Your task to perform on an android device: Open the map Image 0: 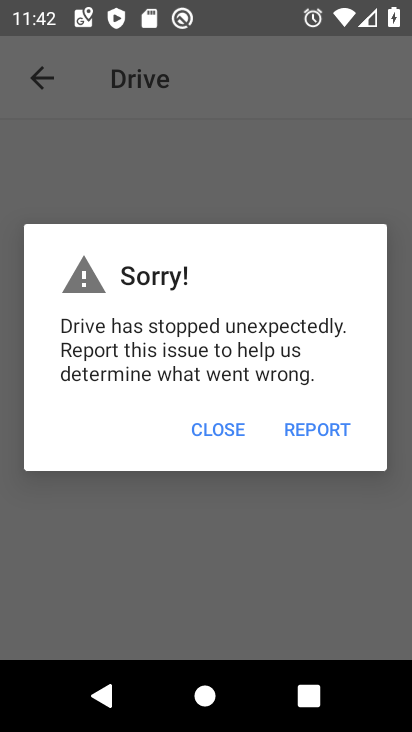
Step 0: press home button
Your task to perform on an android device: Open the map Image 1: 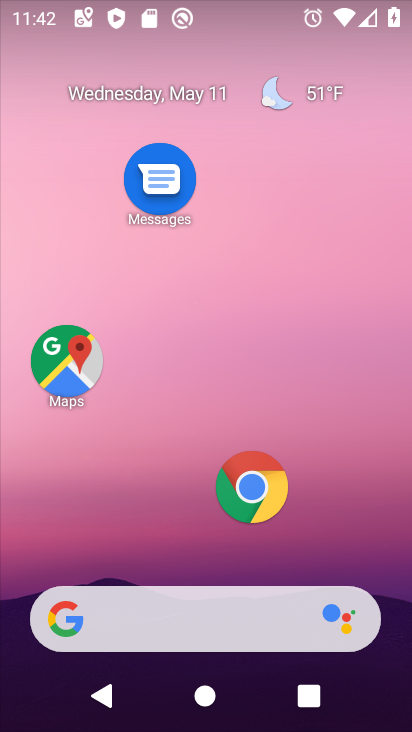
Step 1: click (88, 342)
Your task to perform on an android device: Open the map Image 2: 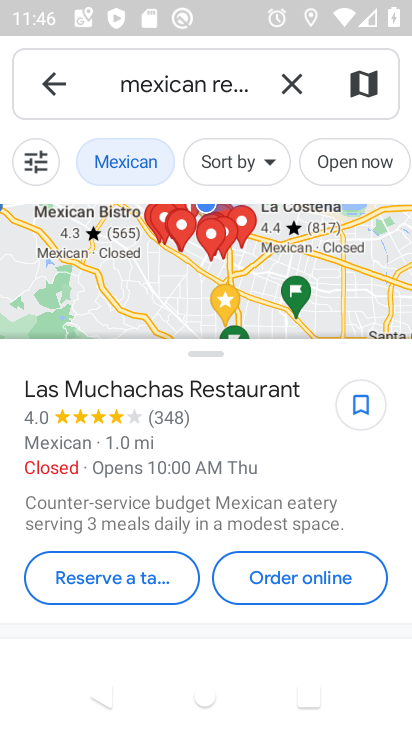
Step 2: task complete